Your task to perform on an android device: turn on data saver in the chrome app Image 0: 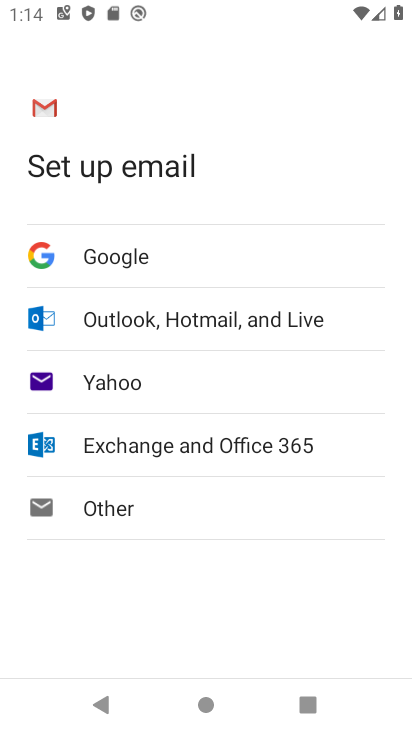
Step 0: press home button
Your task to perform on an android device: turn on data saver in the chrome app Image 1: 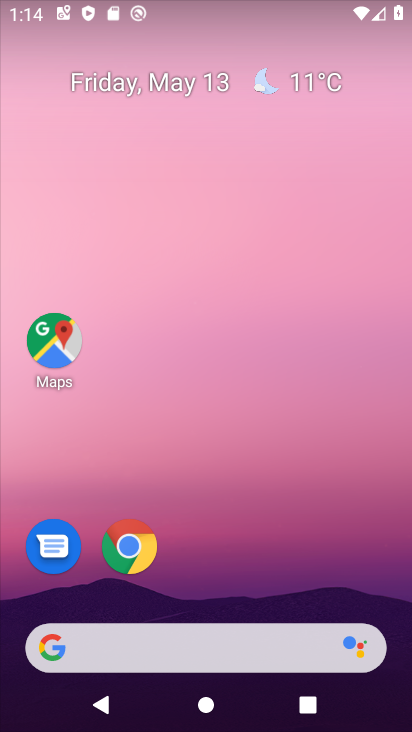
Step 1: drag from (245, 584) to (297, 150)
Your task to perform on an android device: turn on data saver in the chrome app Image 2: 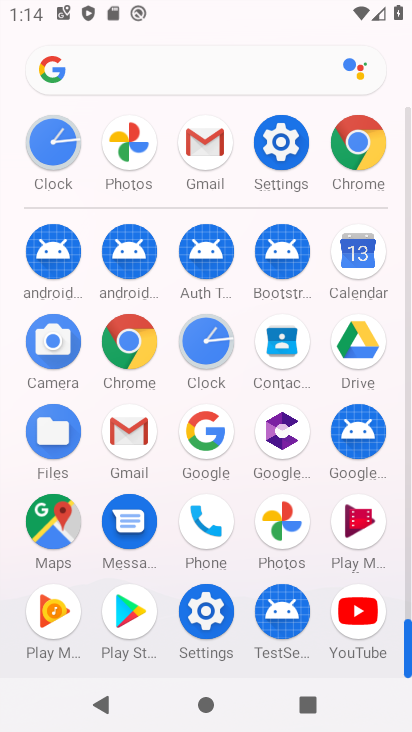
Step 2: click (350, 160)
Your task to perform on an android device: turn on data saver in the chrome app Image 3: 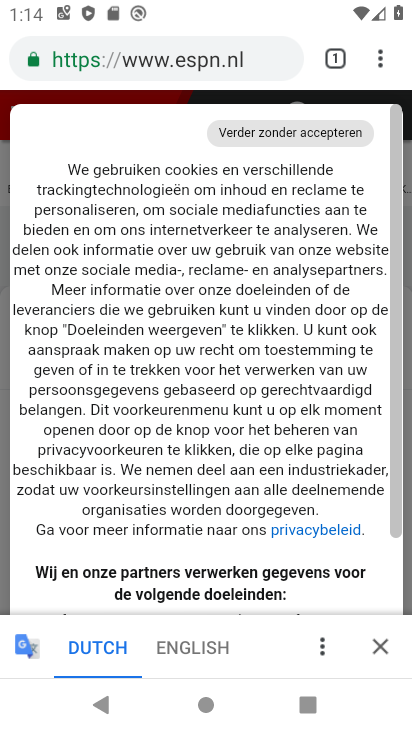
Step 3: click (379, 66)
Your task to perform on an android device: turn on data saver in the chrome app Image 4: 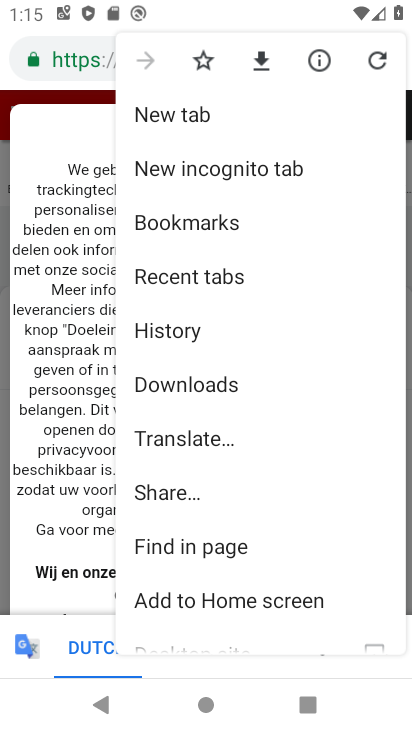
Step 4: drag from (229, 349) to (236, 213)
Your task to perform on an android device: turn on data saver in the chrome app Image 5: 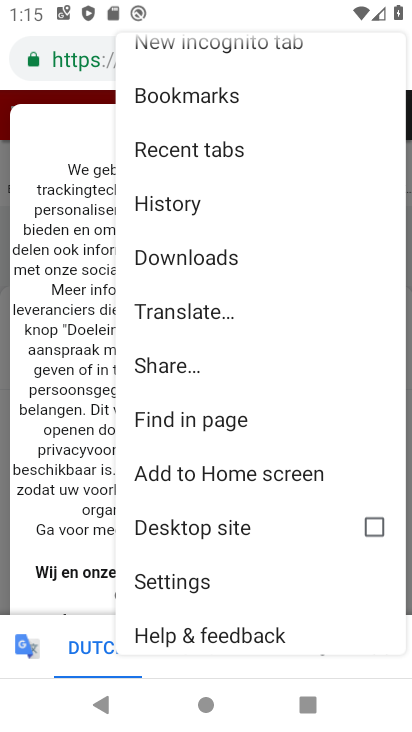
Step 5: click (184, 584)
Your task to perform on an android device: turn on data saver in the chrome app Image 6: 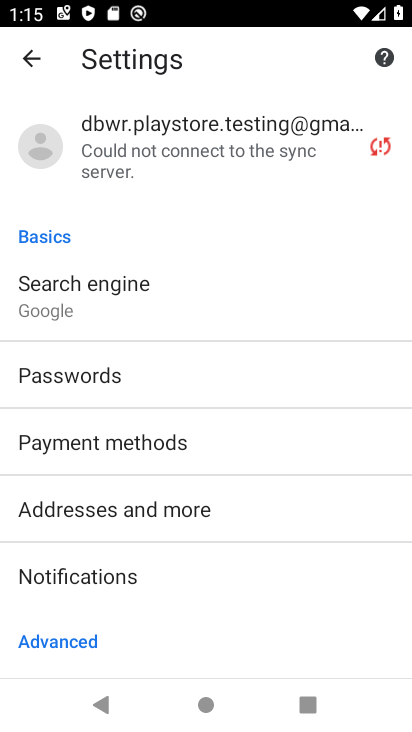
Step 6: drag from (182, 588) to (224, 309)
Your task to perform on an android device: turn on data saver in the chrome app Image 7: 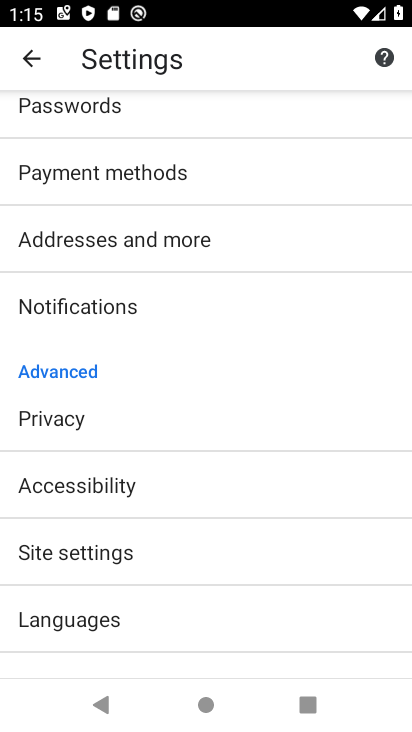
Step 7: drag from (199, 508) to (242, 275)
Your task to perform on an android device: turn on data saver in the chrome app Image 8: 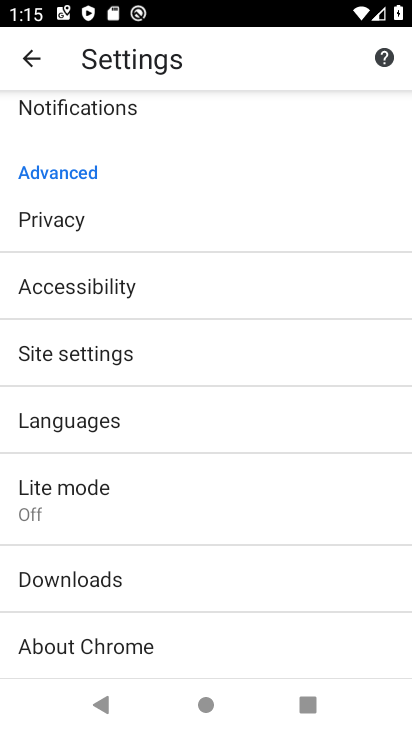
Step 8: drag from (186, 473) to (217, 275)
Your task to perform on an android device: turn on data saver in the chrome app Image 9: 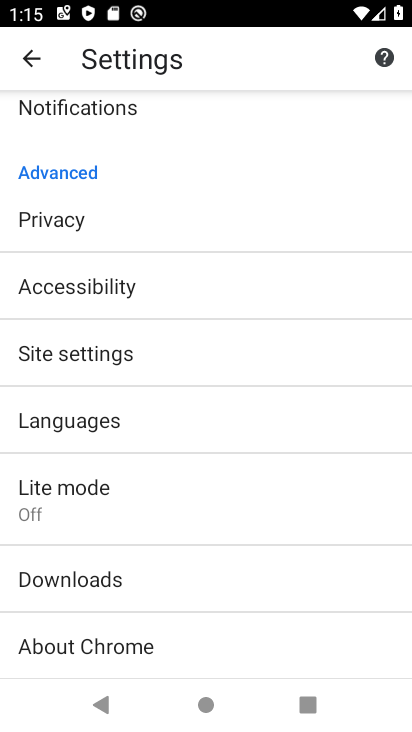
Step 9: click (158, 489)
Your task to perform on an android device: turn on data saver in the chrome app Image 10: 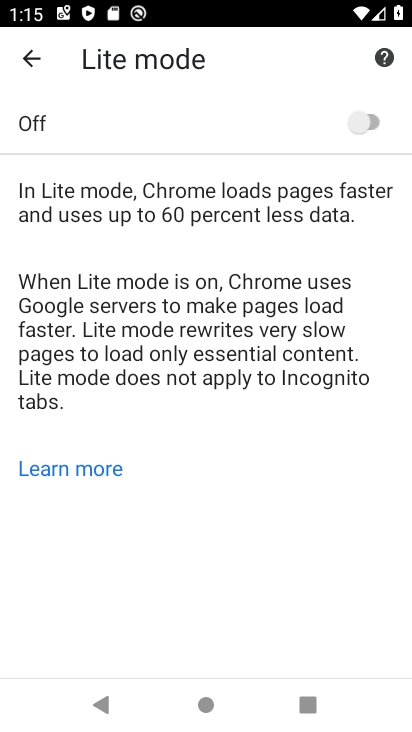
Step 10: click (382, 117)
Your task to perform on an android device: turn on data saver in the chrome app Image 11: 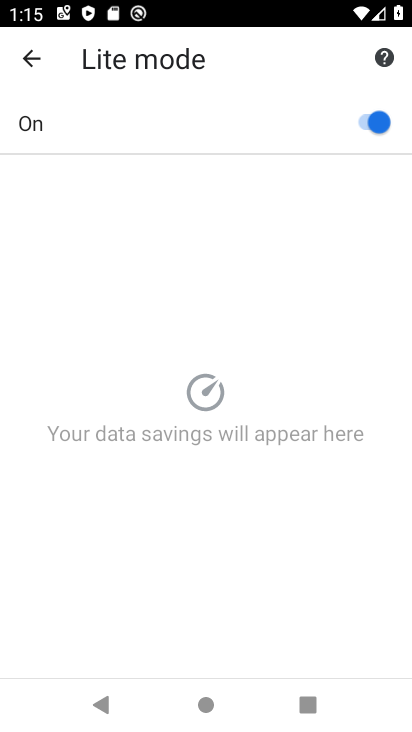
Step 11: task complete